Your task to perform on an android device: toggle sleep mode Image 0: 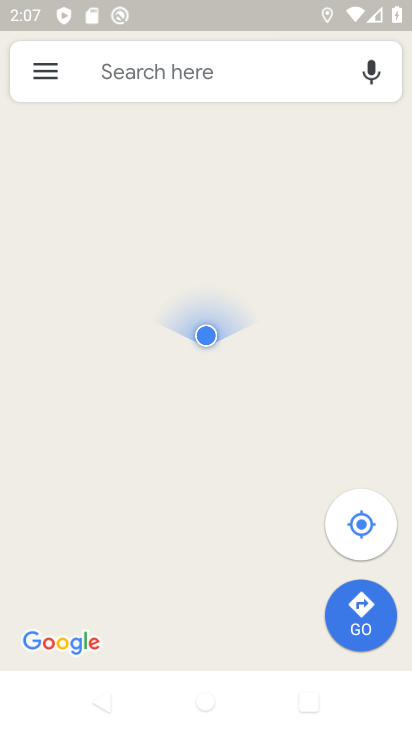
Step 0: press home button
Your task to perform on an android device: toggle sleep mode Image 1: 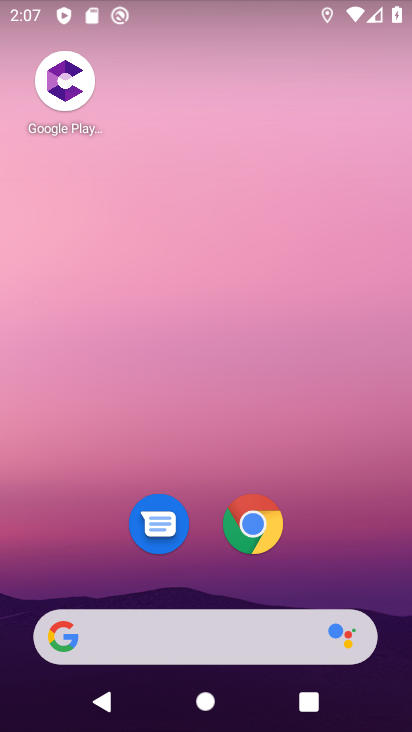
Step 1: drag from (209, 467) to (235, 1)
Your task to perform on an android device: toggle sleep mode Image 2: 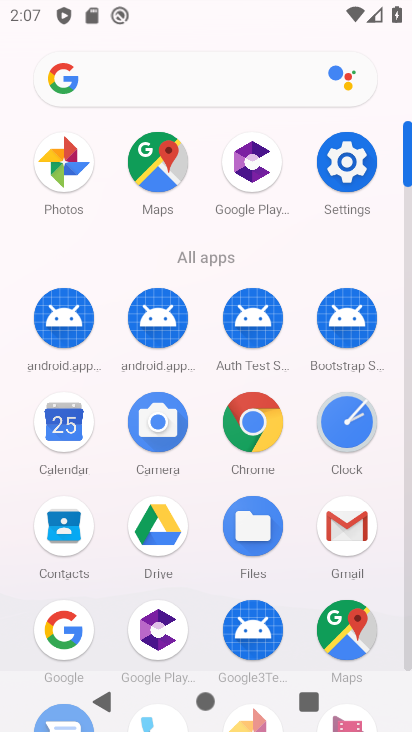
Step 2: click (345, 168)
Your task to perform on an android device: toggle sleep mode Image 3: 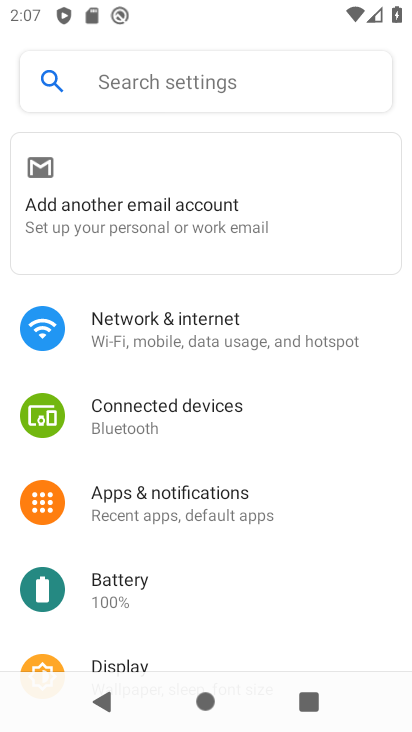
Step 3: drag from (163, 568) to (246, 169)
Your task to perform on an android device: toggle sleep mode Image 4: 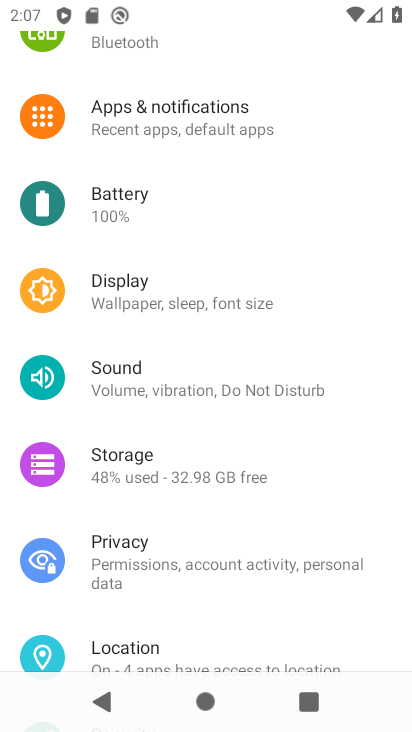
Step 4: click (223, 284)
Your task to perform on an android device: toggle sleep mode Image 5: 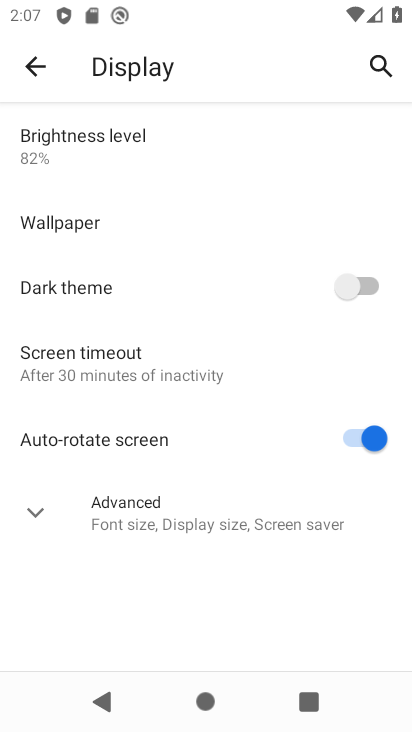
Step 5: click (35, 508)
Your task to perform on an android device: toggle sleep mode Image 6: 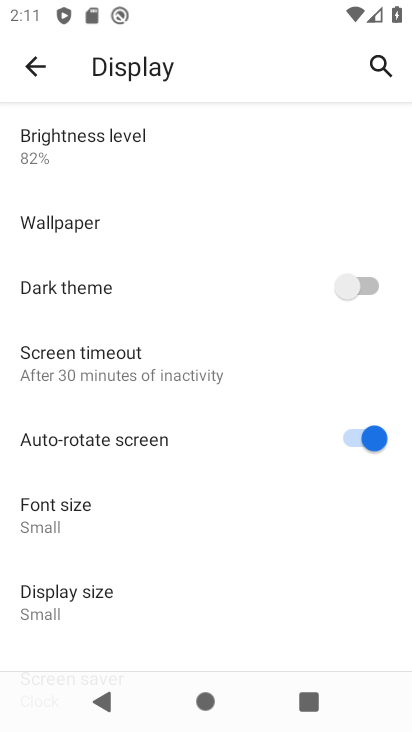
Step 6: task complete